Your task to perform on an android device: Go to sound settings Image 0: 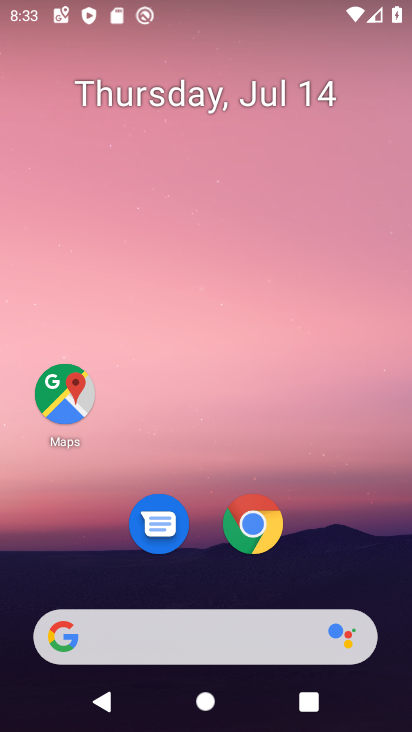
Step 0: drag from (344, 563) to (311, 18)
Your task to perform on an android device: Go to sound settings Image 1: 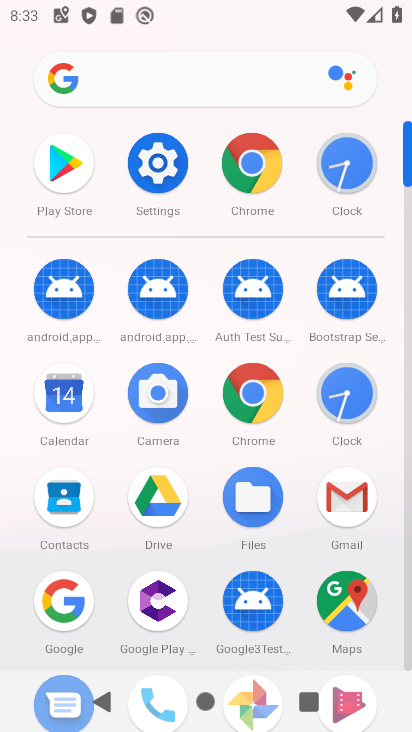
Step 1: click (170, 163)
Your task to perform on an android device: Go to sound settings Image 2: 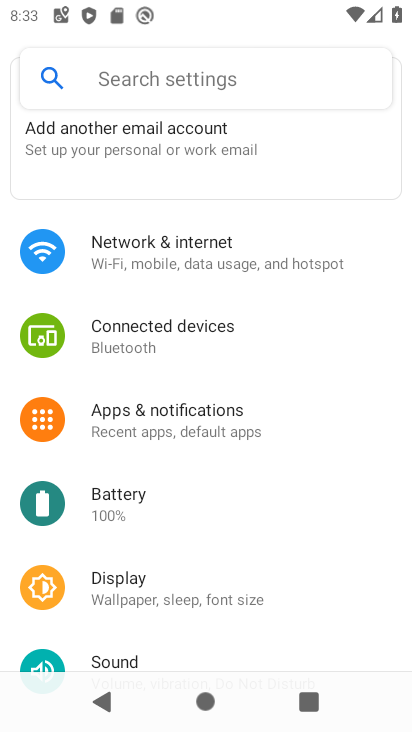
Step 2: drag from (198, 528) to (209, 373)
Your task to perform on an android device: Go to sound settings Image 3: 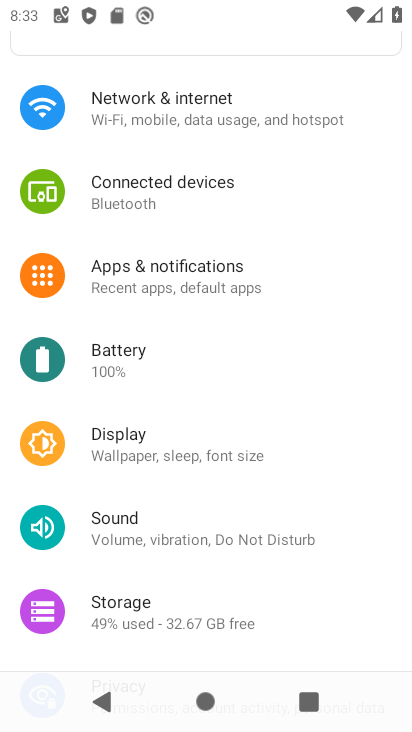
Step 3: click (143, 524)
Your task to perform on an android device: Go to sound settings Image 4: 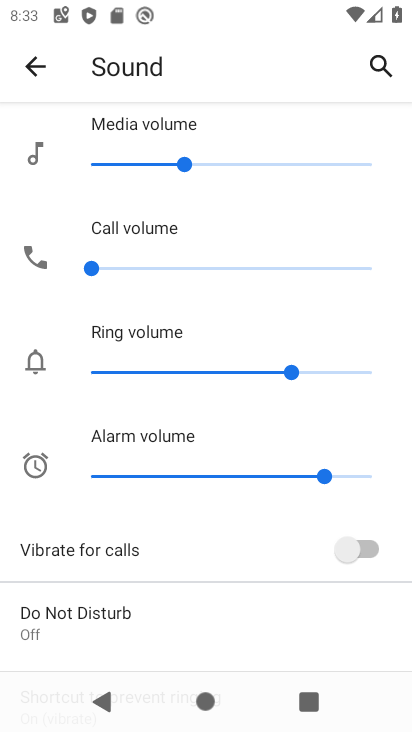
Step 4: task complete